Your task to perform on an android device: Is it going to rain today? Image 0: 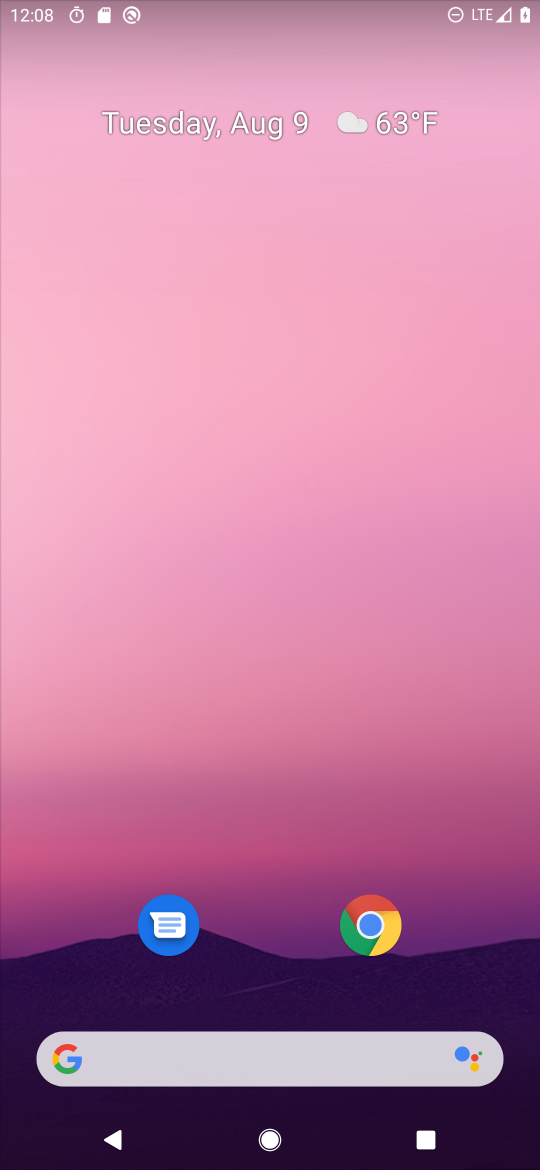
Step 0: click (423, 128)
Your task to perform on an android device: Is it going to rain today? Image 1: 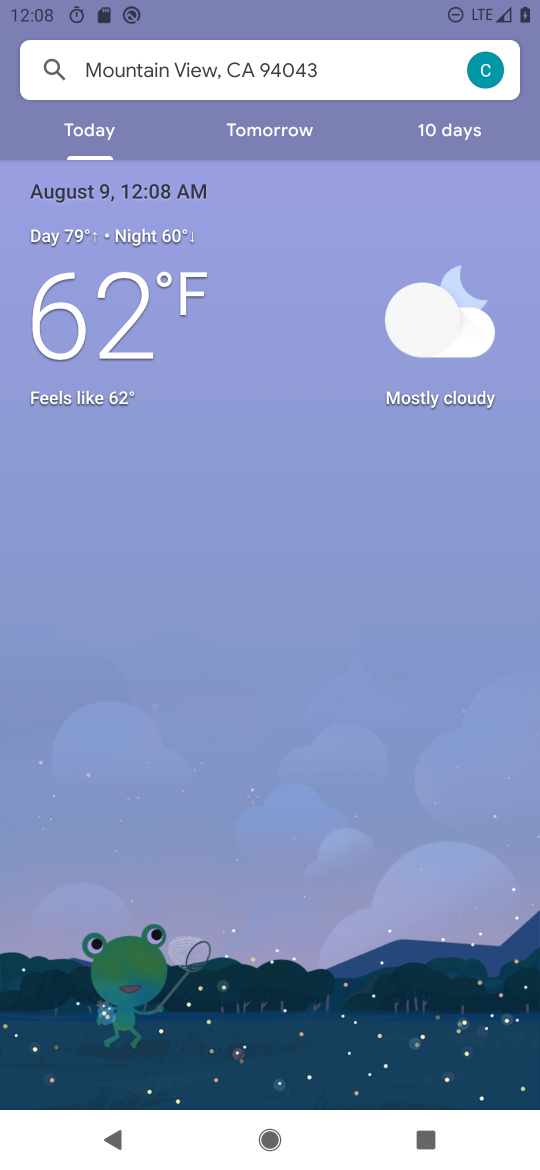
Step 1: click (404, 395)
Your task to perform on an android device: Is it going to rain today? Image 2: 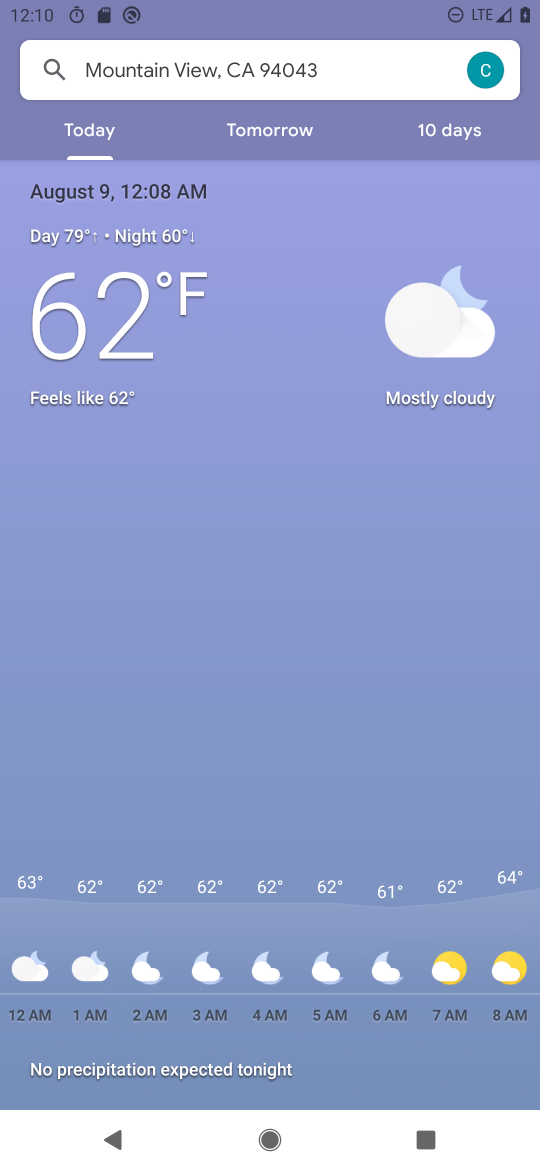
Step 2: task complete